Your task to perform on an android device: allow cookies in the chrome app Image 0: 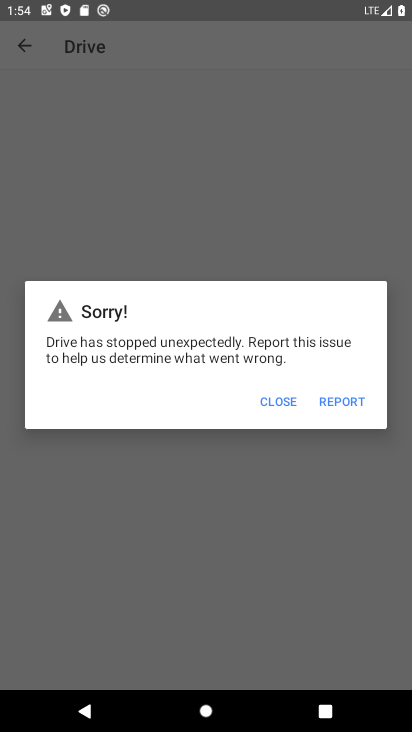
Step 0: press home button
Your task to perform on an android device: allow cookies in the chrome app Image 1: 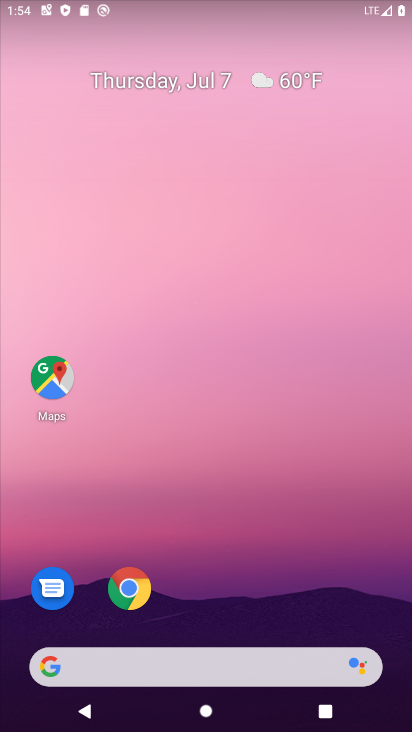
Step 1: drag from (224, 622) to (273, 332)
Your task to perform on an android device: allow cookies in the chrome app Image 2: 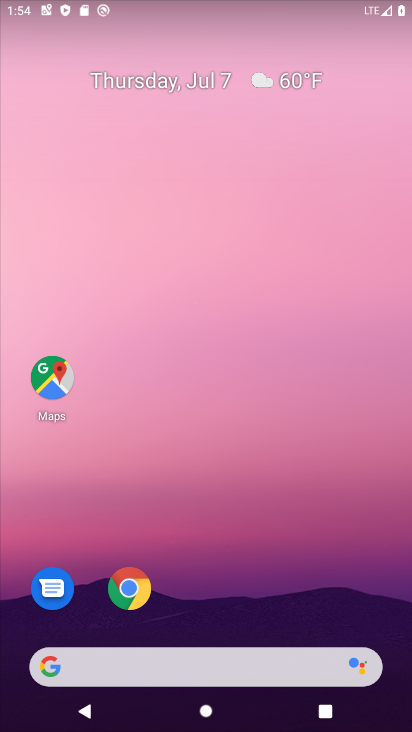
Step 2: drag from (180, 615) to (216, 185)
Your task to perform on an android device: allow cookies in the chrome app Image 3: 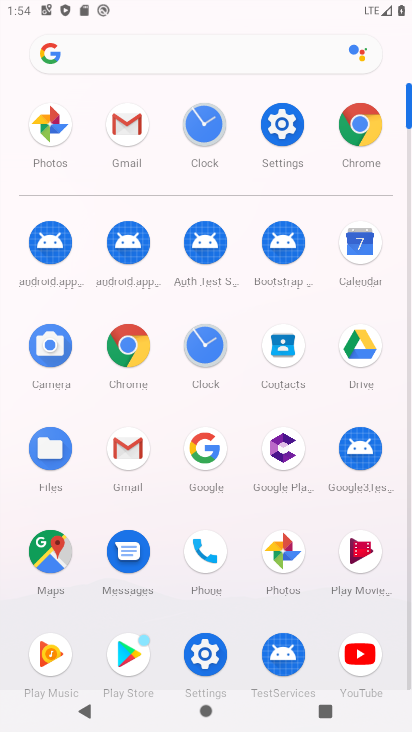
Step 3: click (289, 111)
Your task to perform on an android device: allow cookies in the chrome app Image 4: 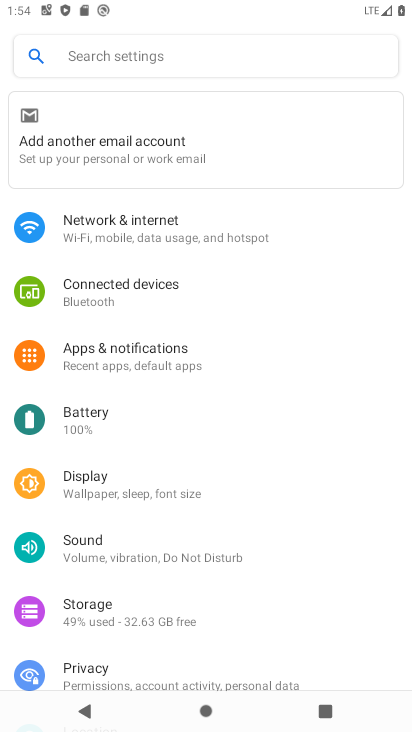
Step 4: press home button
Your task to perform on an android device: allow cookies in the chrome app Image 5: 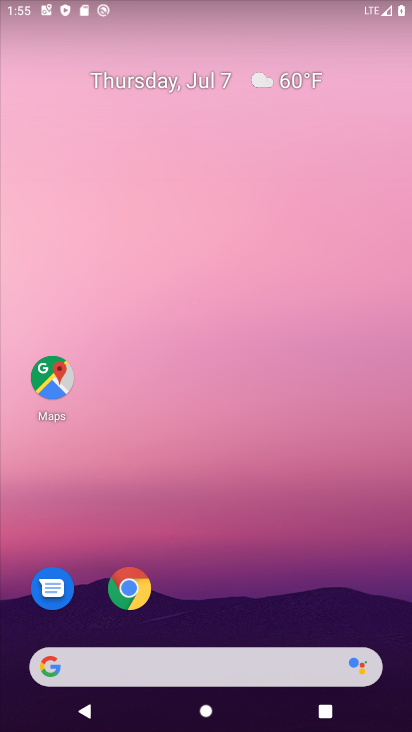
Step 5: drag from (217, 615) to (222, 130)
Your task to perform on an android device: allow cookies in the chrome app Image 6: 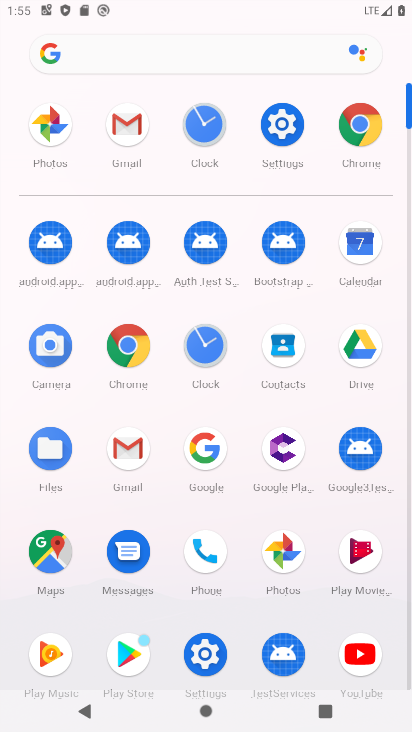
Step 6: click (366, 111)
Your task to perform on an android device: allow cookies in the chrome app Image 7: 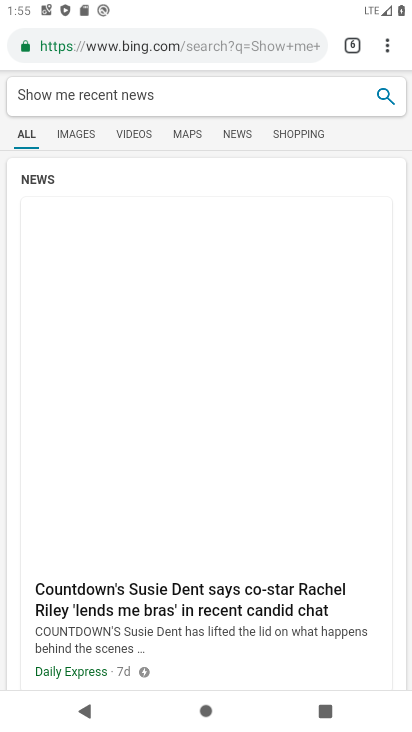
Step 7: click (396, 46)
Your task to perform on an android device: allow cookies in the chrome app Image 8: 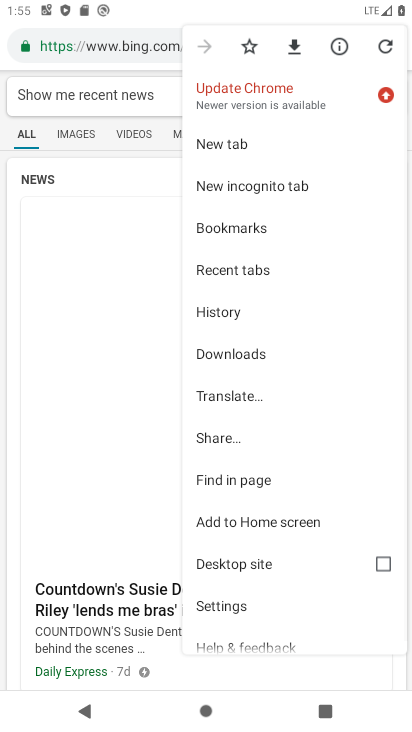
Step 8: click (231, 599)
Your task to perform on an android device: allow cookies in the chrome app Image 9: 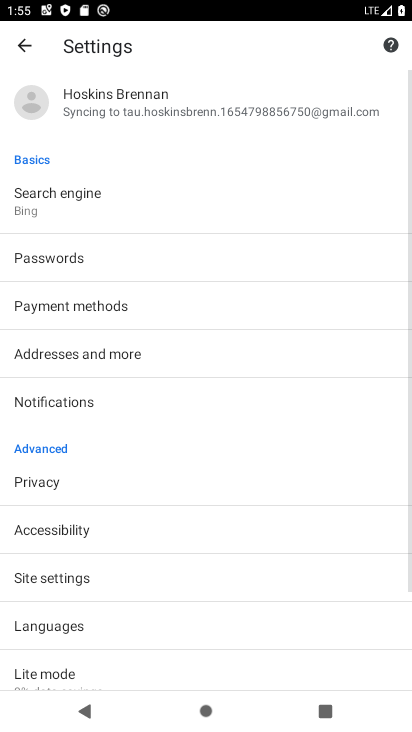
Step 9: drag from (130, 592) to (150, 264)
Your task to perform on an android device: allow cookies in the chrome app Image 10: 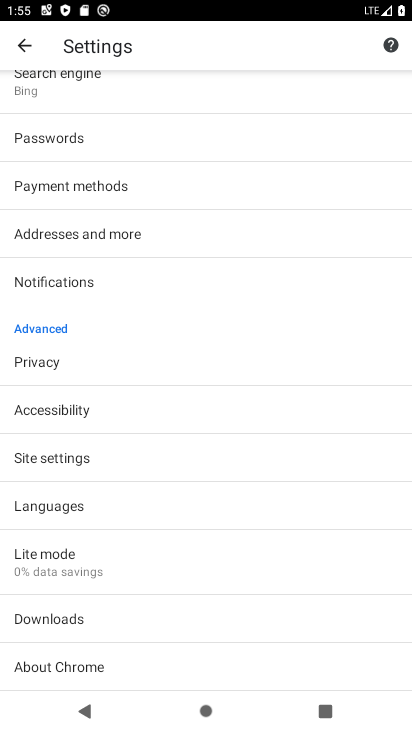
Step 10: click (80, 368)
Your task to perform on an android device: allow cookies in the chrome app Image 11: 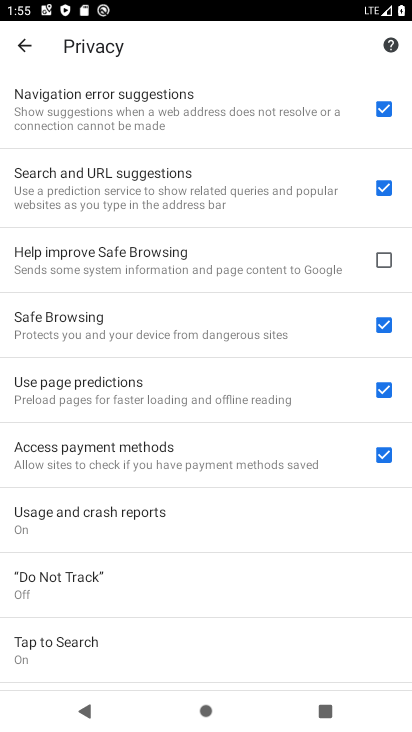
Step 11: drag from (193, 593) to (196, 207)
Your task to perform on an android device: allow cookies in the chrome app Image 12: 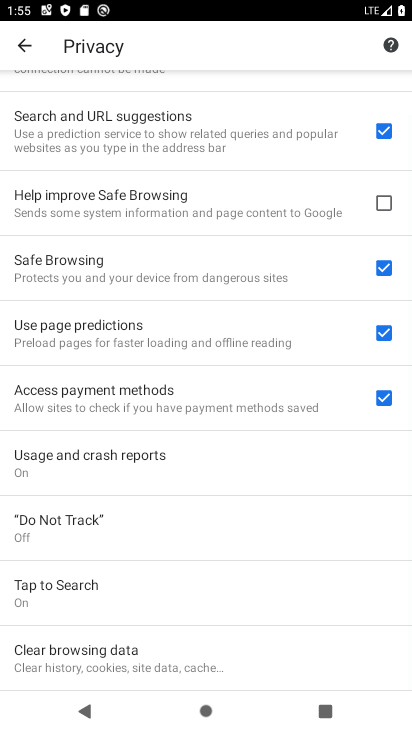
Step 12: click (135, 656)
Your task to perform on an android device: allow cookies in the chrome app Image 13: 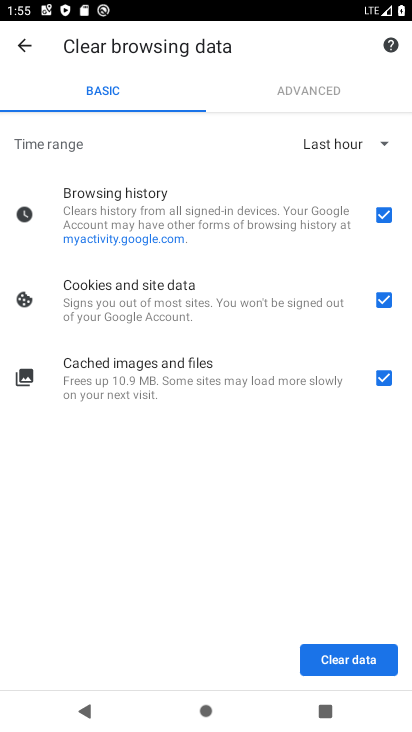
Step 13: click (163, 292)
Your task to perform on an android device: allow cookies in the chrome app Image 14: 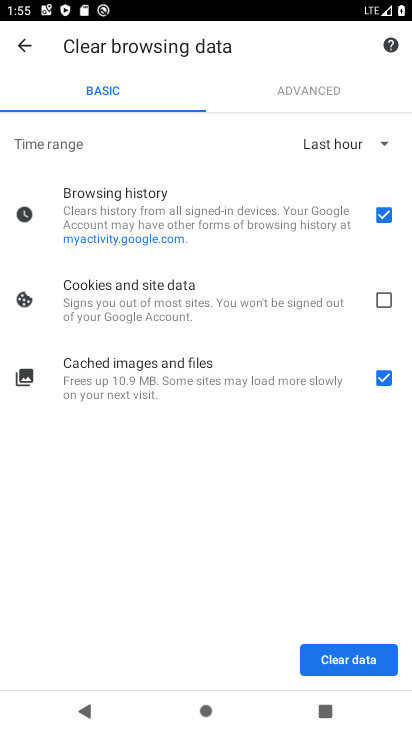
Step 14: click (163, 292)
Your task to perform on an android device: allow cookies in the chrome app Image 15: 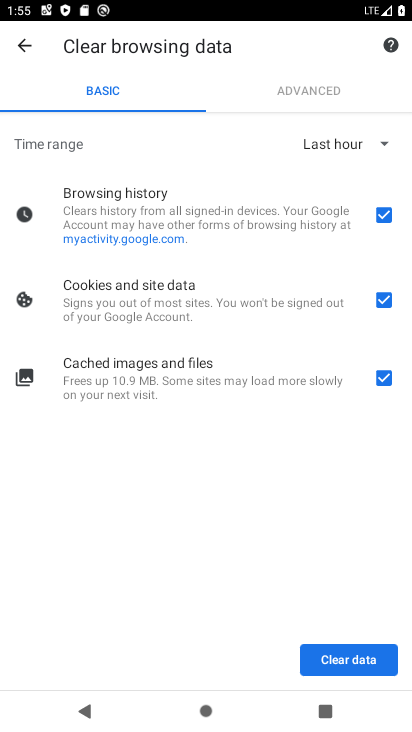
Step 15: task complete